Your task to perform on an android device: Open accessibility settings Image 0: 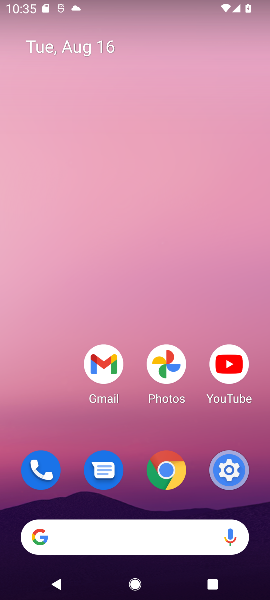
Step 0: click (48, 406)
Your task to perform on an android device: Open accessibility settings Image 1: 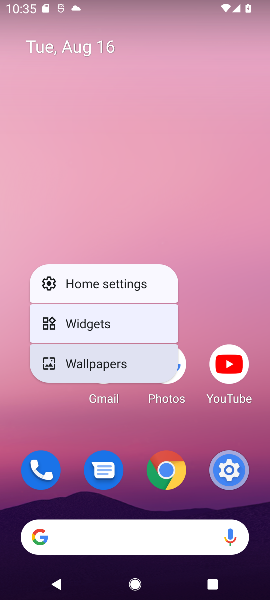
Step 1: click (224, 276)
Your task to perform on an android device: Open accessibility settings Image 2: 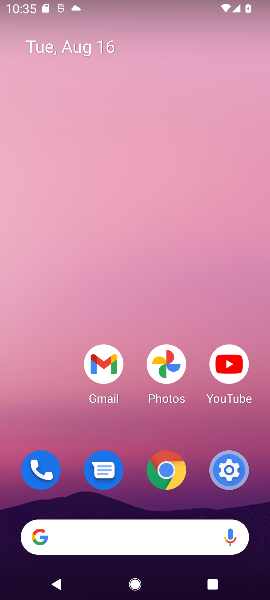
Step 2: click (229, 465)
Your task to perform on an android device: Open accessibility settings Image 3: 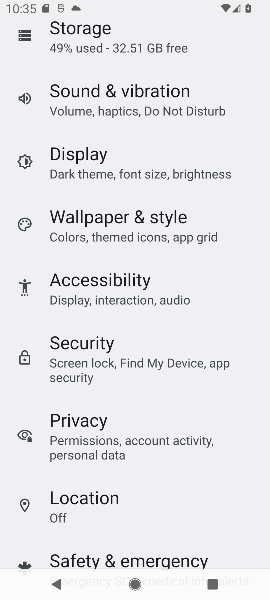
Step 3: click (129, 296)
Your task to perform on an android device: Open accessibility settings Image 4: 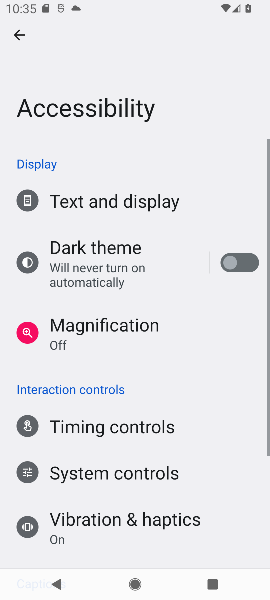
Step 4: task complete